Your task to perform on an android device: What is the news today? Image 0: 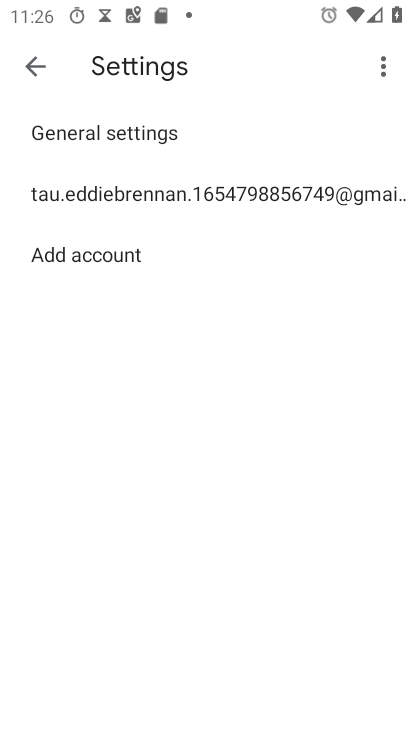
Step 0: press home button
Your task to perform on an android device: What is the news today? Image 1: 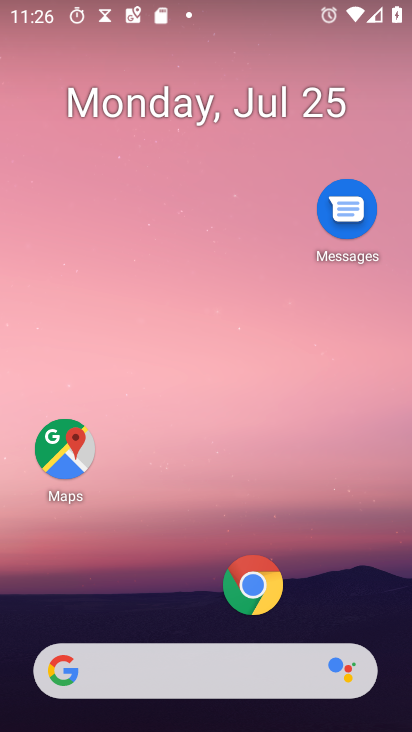
Step 1: click (163, 668)
Your task to perform on an android device: What is the news today? Image 2: 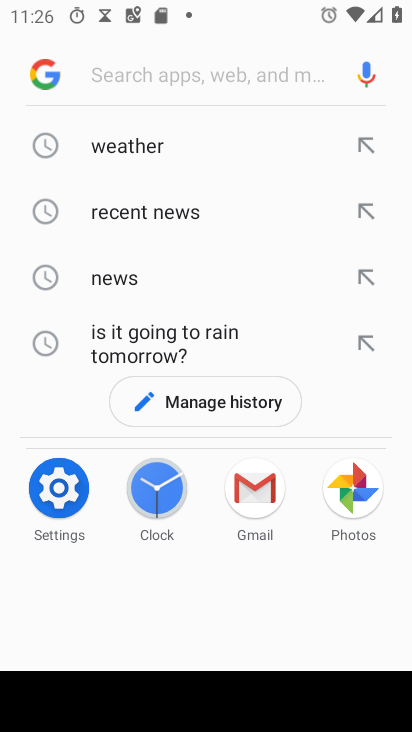
Step 2: click (175, 211)
Your task to perform on an android device: What is the news today? Image 3: 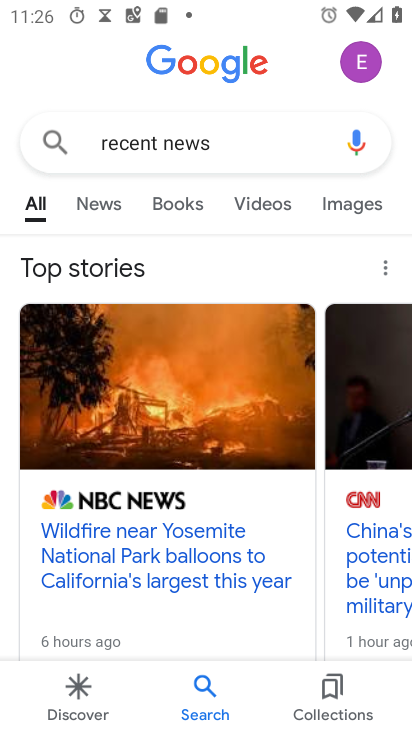
Step 3: click (93, 204)
Your task to perform on an android device: What is the news today? Image 4: 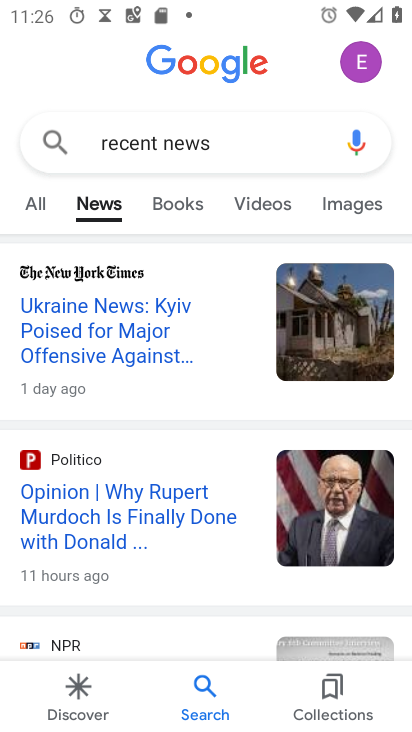
Step 4: task complete